Your task to perform on an android device: How big is the moon? Image 0: 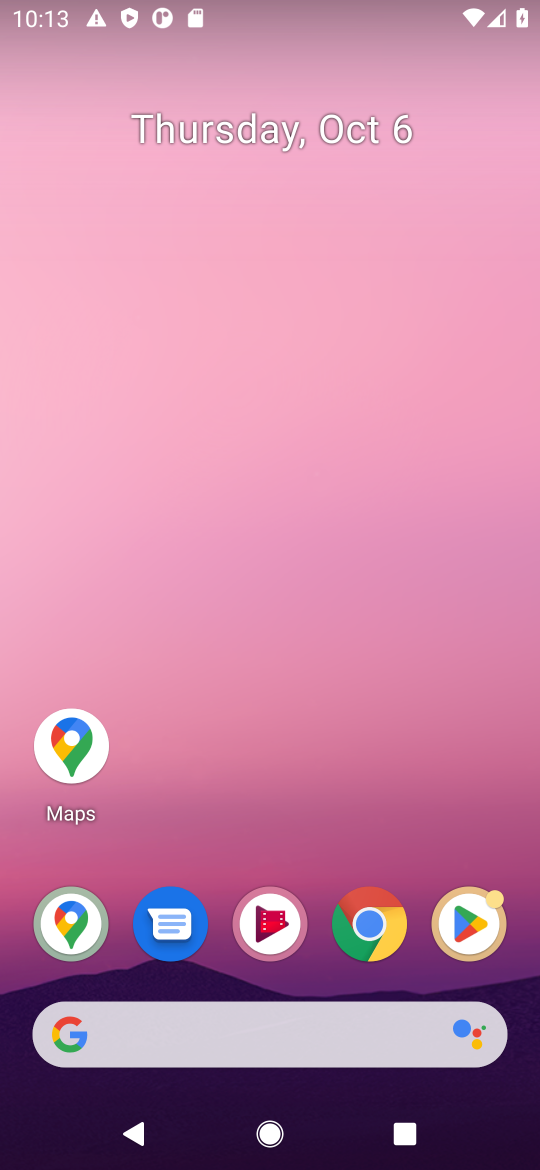
Step 0: click (369, 935)
Your task to perform on an android device: How big is the moon? Image 1: 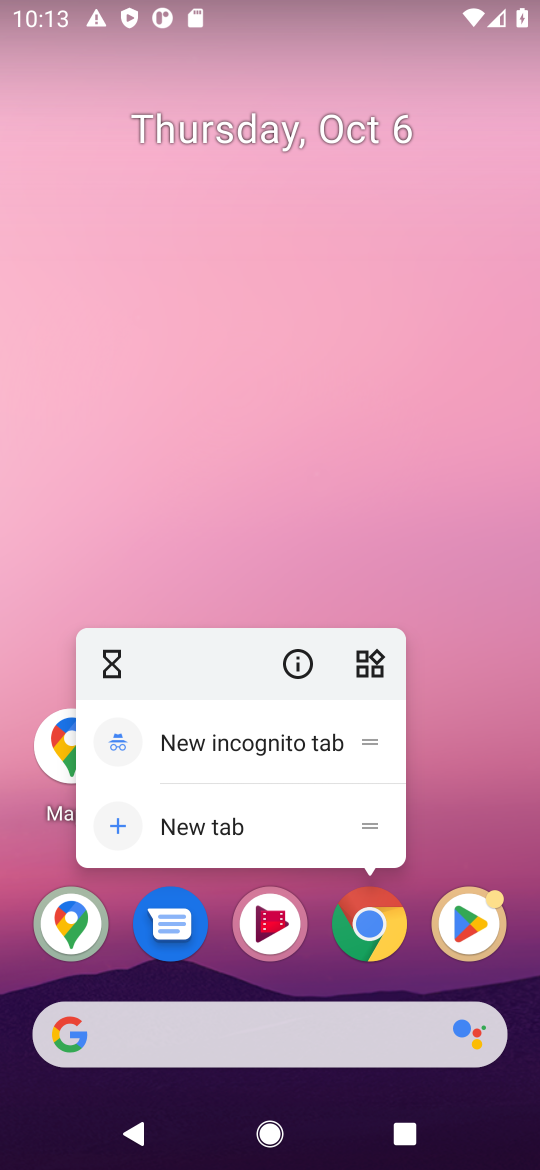
Step 1: click (378, 925)
Your task to perform on an android device: How big is the moon? Image 2: 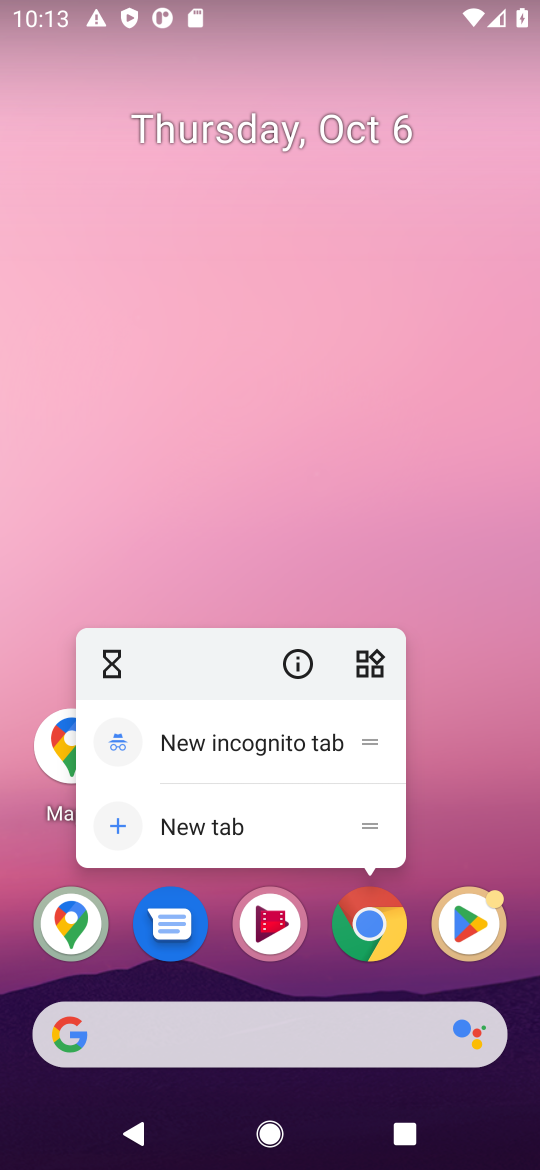
Step 2: click (371, 921)
Your task to perform on an android device: How big is the moon? Image 3: 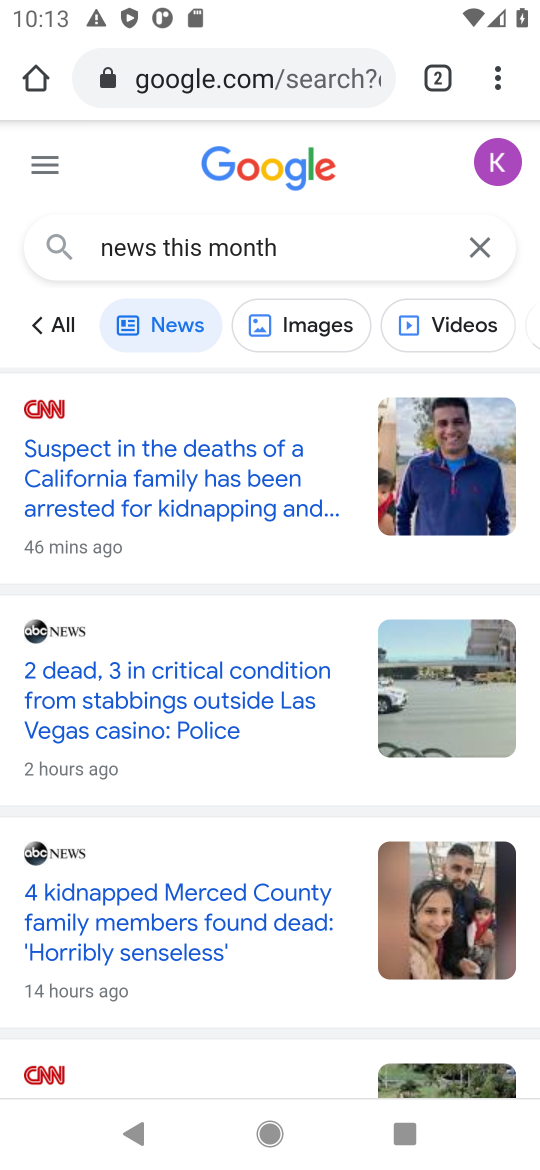
Step 3: click (313, 75)
Your task to perform on an android device: How big is the moon? Image 4: 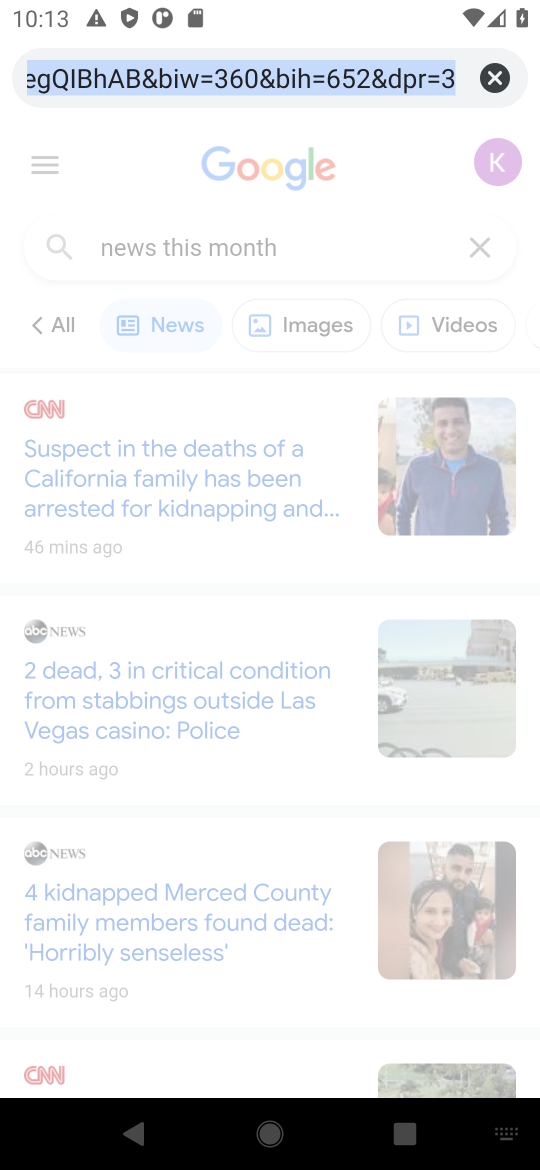
Step 4: click (494, 77)
Your task to perform on an android device: How big is the moon? Image 5: 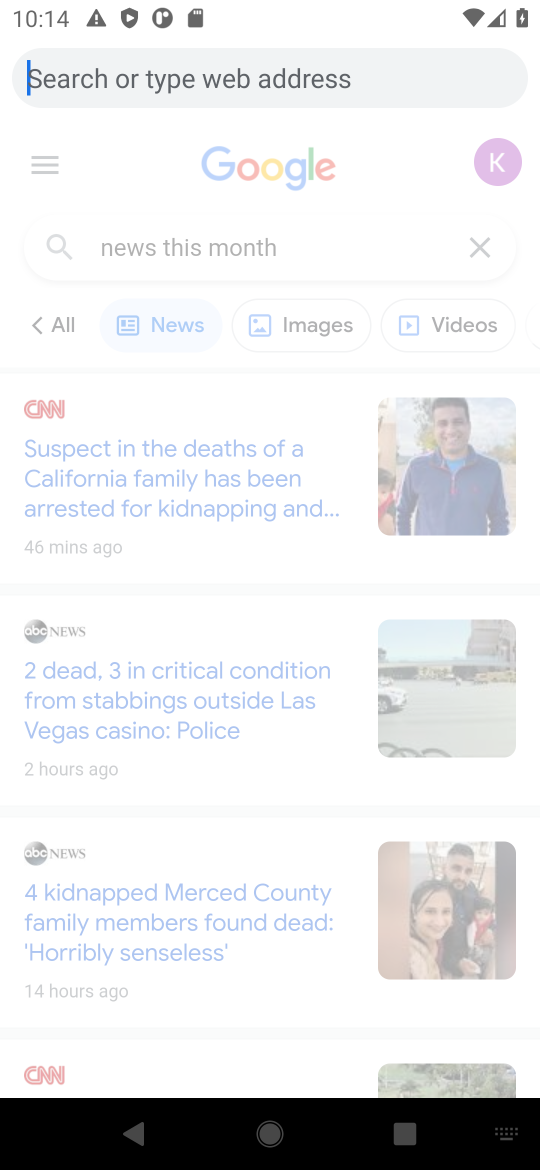
Step 5: type "How big is the moon"
Your task to perform on an android device: How big is the moon? Image 6: 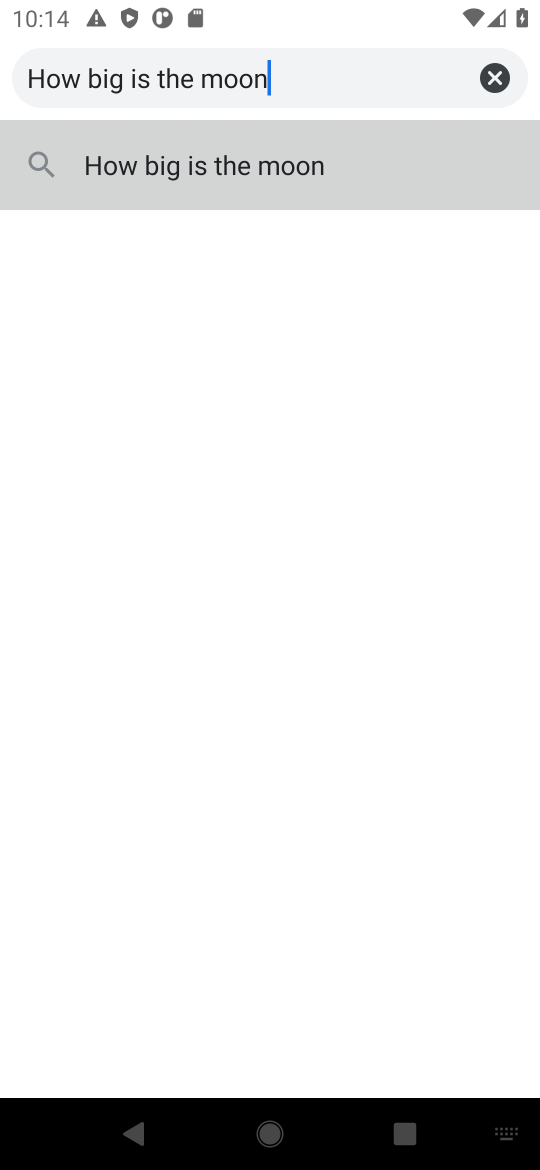
Step 6: click (279, 163)
Your task to perform on an android device: How big is the moon? Image 7: 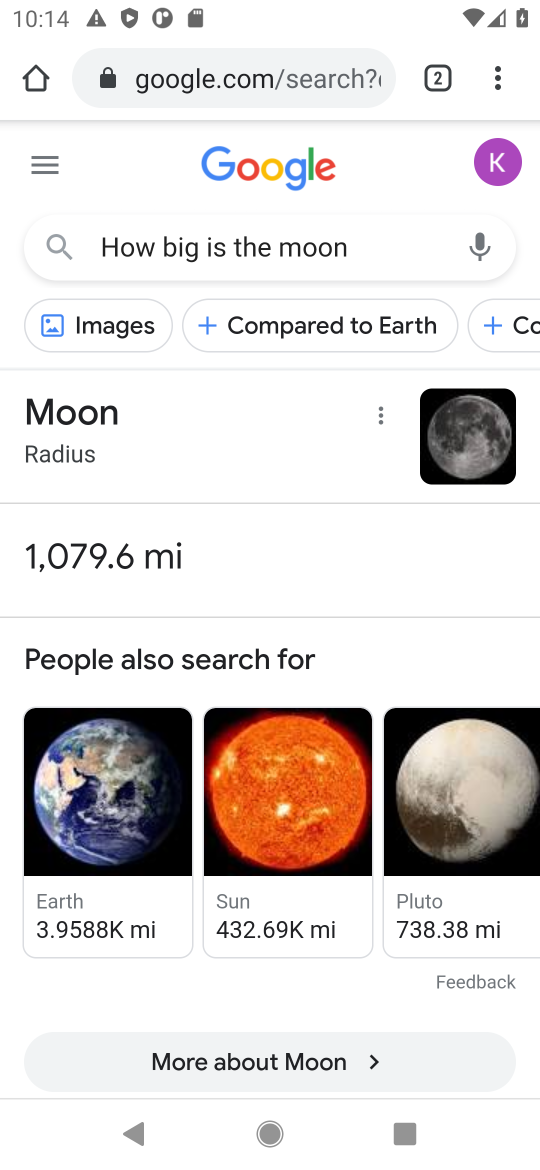
Step 7: drag from (225, 1002) to (388, 128)
Your task to perform on an android device: How big is the moon? Image 8: 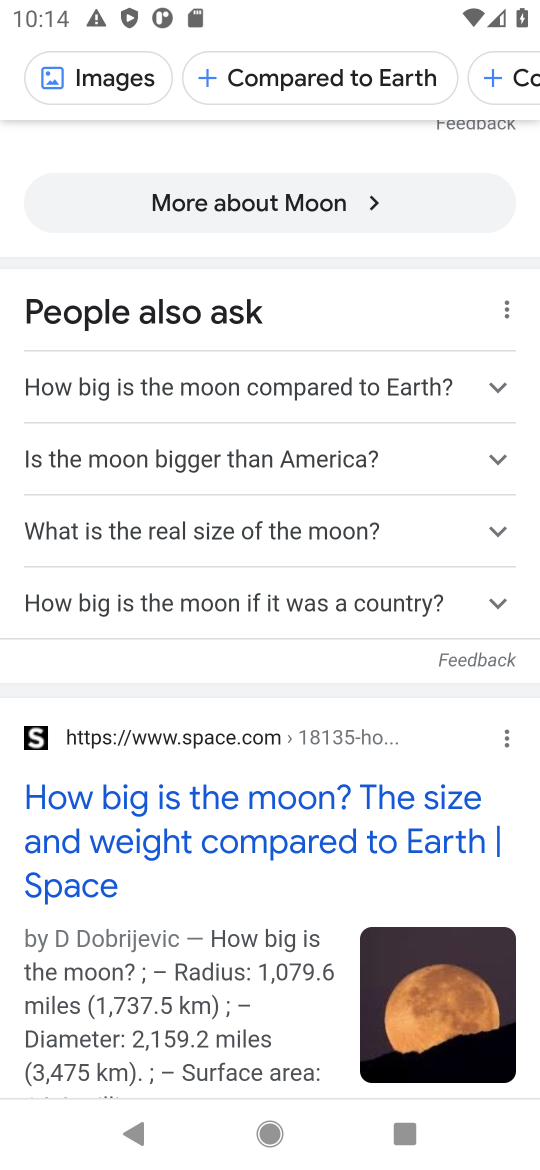
Step 8: click (290, 811)
Your task to perform on an android device: How big is the moon? Image 9: 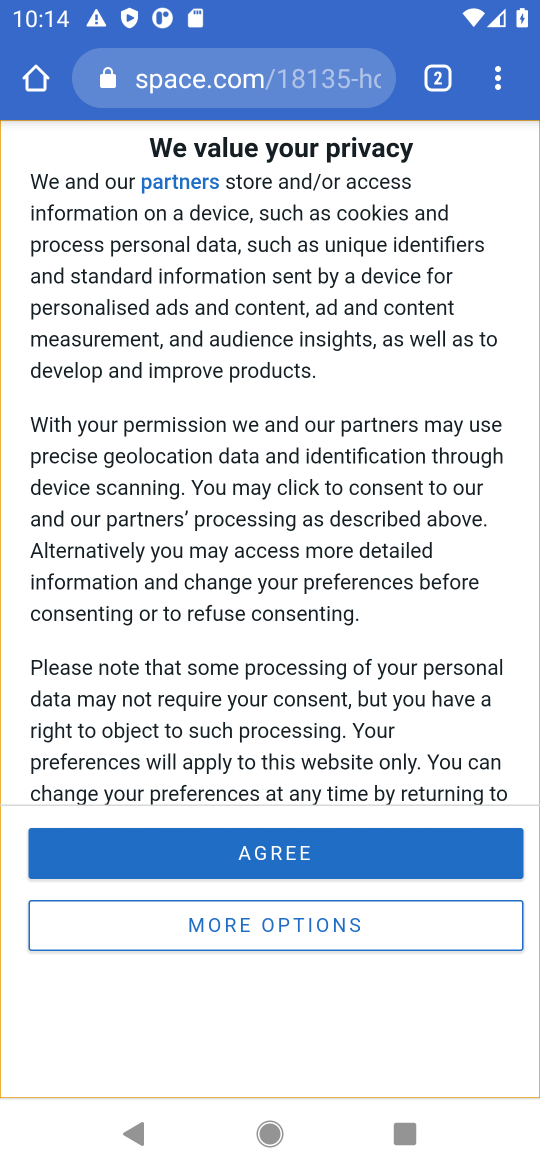
Step 9: drag from (414, 869) to (530, 260)
Your task to perform on an android device: How big is the moon? Image 10: 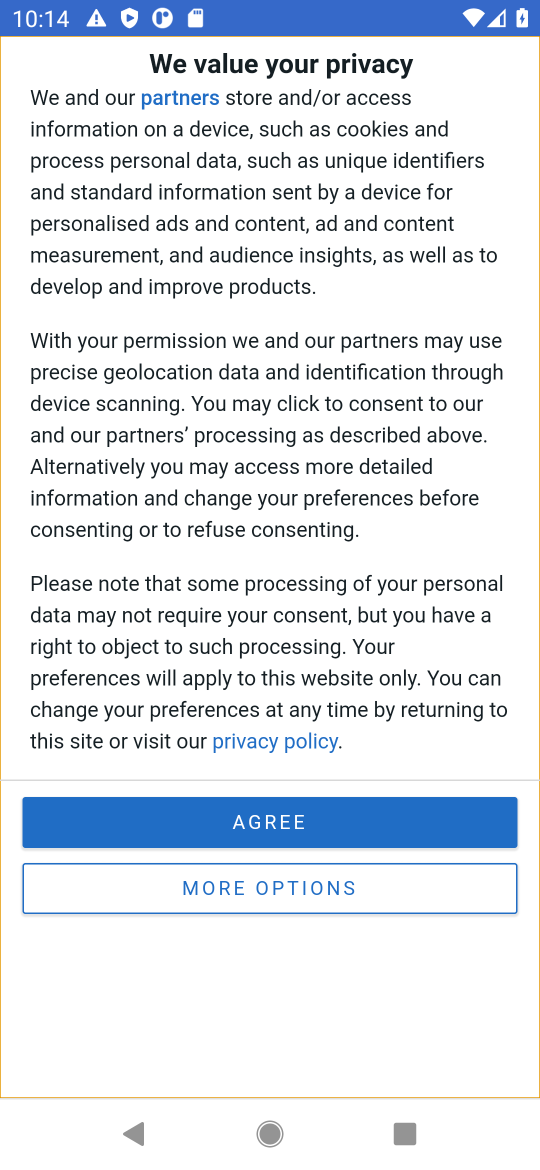
Step 10: click (268, 820)
Your task to perform on an android device: How big is the moon? Image 11: 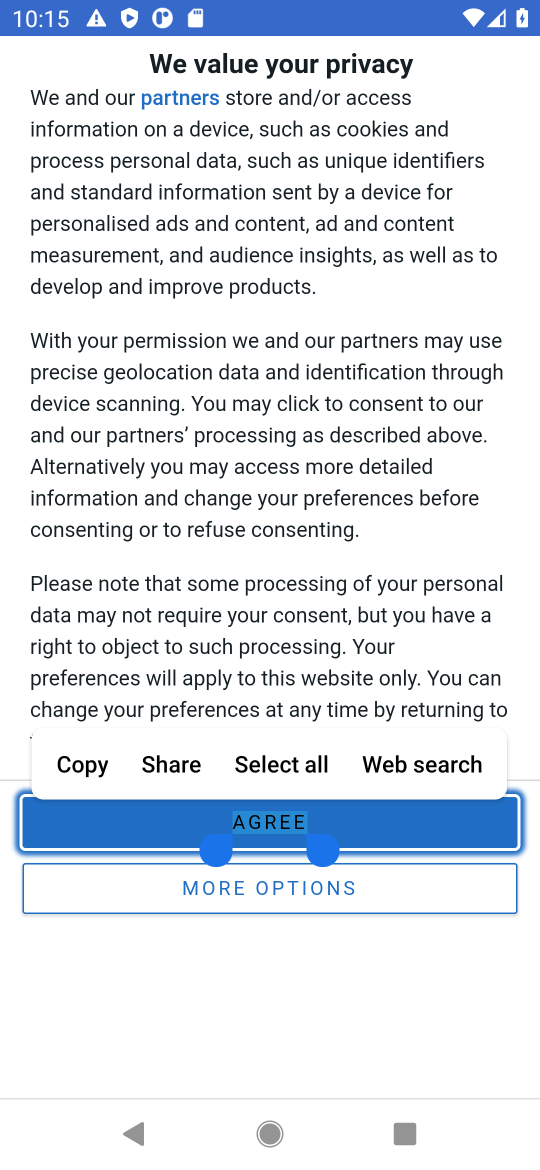
Step 11: click (260, 823)
Your task to perform on an android device: How big is the moon? Image 12: 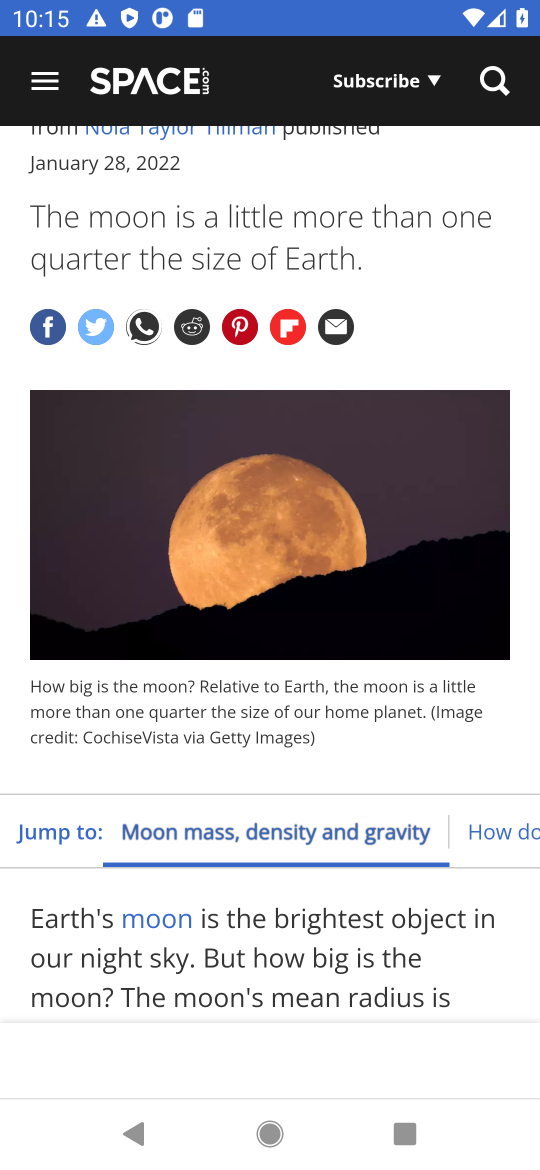
Step 12: task complete